Your task to perform on an android device: remove spam from my inbox in the gmail app Image 0: 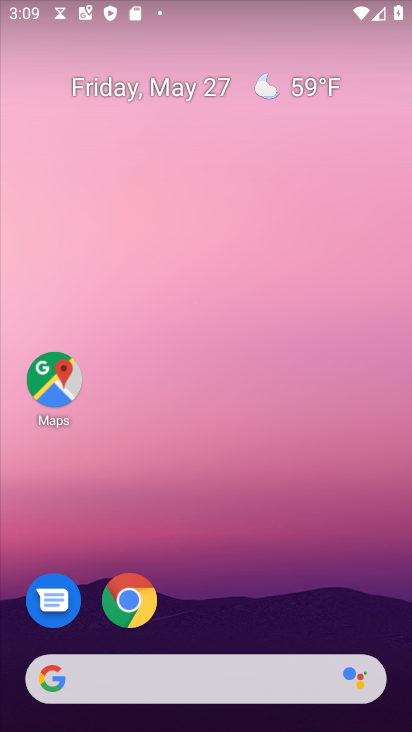
Step 0: drag from (264, 584) to (243, 78)
Your task to perform on an android device: remove spam from my inbox in the gmail app Image 1: 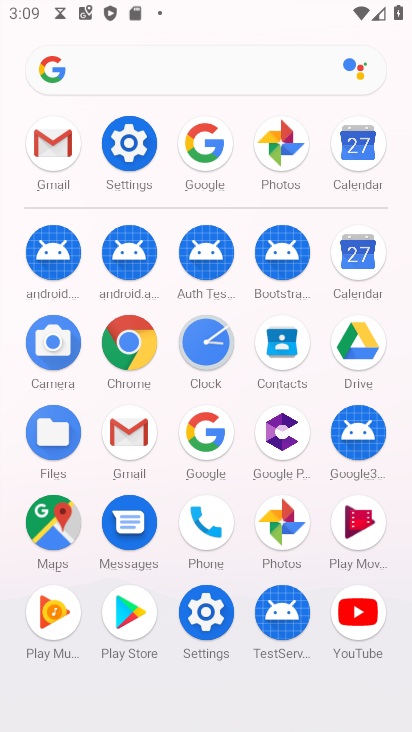
Step 1: click (51, 142)
Your task to perform on an android device: remove spam from my inbox in the gmail app Image 2: 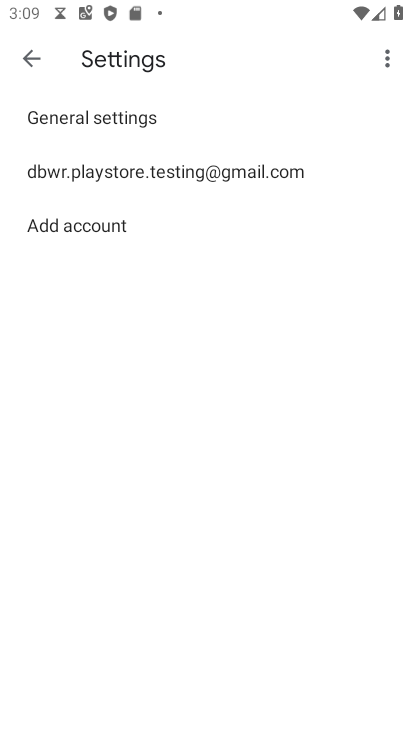
Step 2: click (28, 58)
Your task to perform on an android device: remove spam from my inbox in the gmail app Image 3: 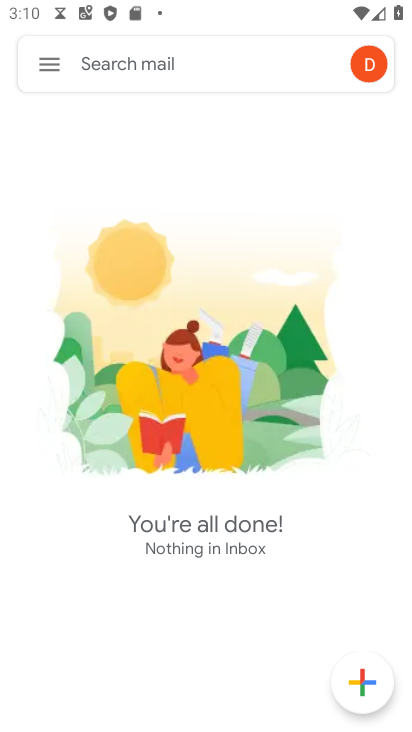
Step 3: click (47, 63)
Your task to perform on an android device: remove spam from my inbox in the gmail app Image 4: 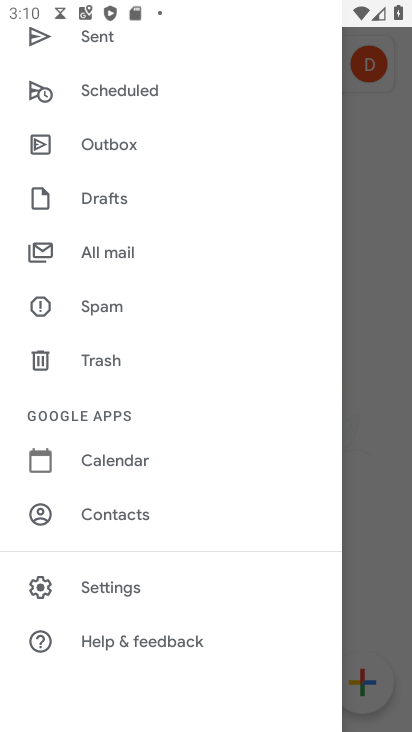
Step 4: click (109, 305)
Your task to perform on an android device: remove spam from my inbox in the gmail app Image 5: 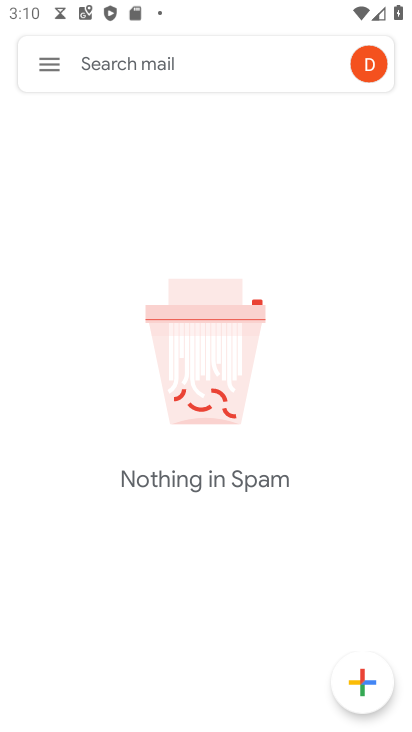
Step 5: task complete